Your task to perform on an android device: Go to ESPN.com Image 0: 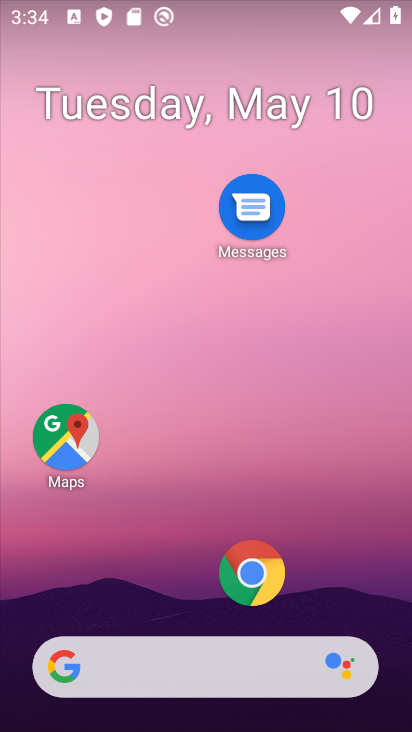
Step 0: click (242, 581)
Your task to perform on an android device: Go to ESPN.com Image 1: 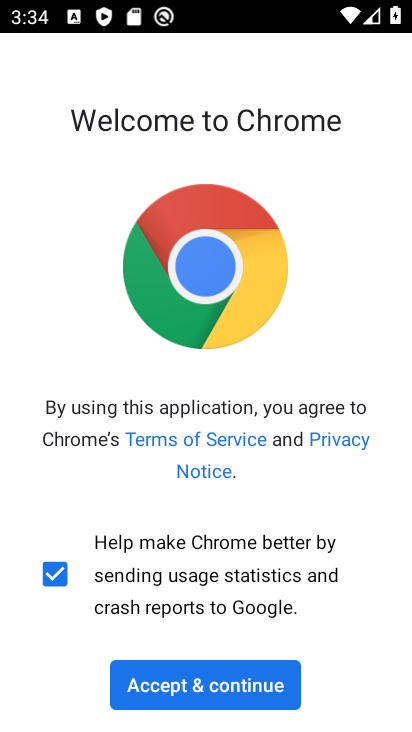
Step 1: click (153, 687)
Your task to perform on an android device: Go to ESPN.com Image 2: 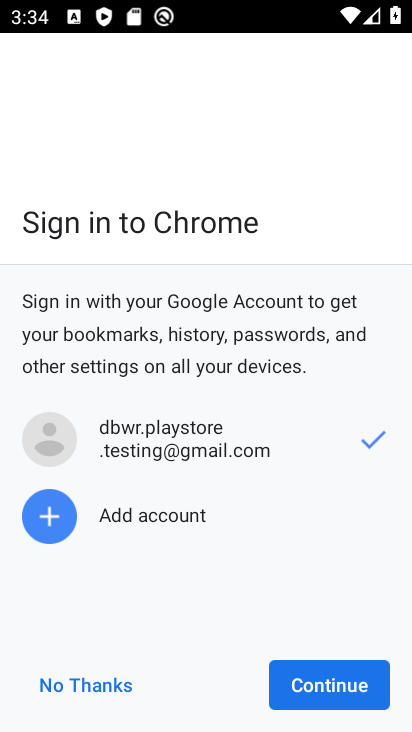
Step 2: click (340, 685)
Your task to perform on an android device: Go to ESPN.com Image 3: 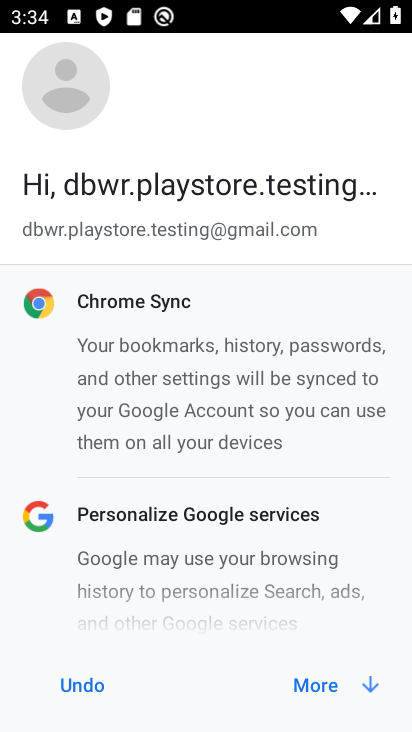
Step 3: click (351, 673)
Your task to perform on an android device: Go to ESPN.com Image 4: 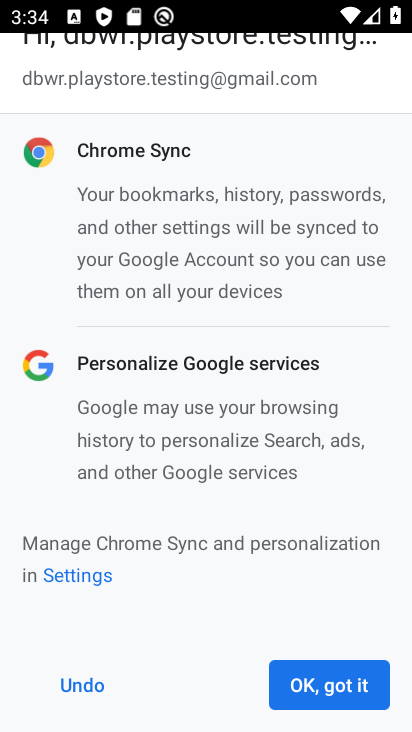
Step 4: click (351, 673)
Your task to perform on an android device: Go to ESPN.com Image 5: 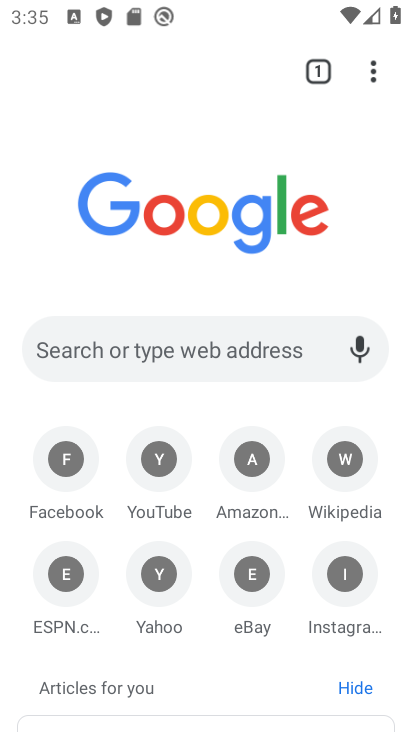
Step 5: click (321, 71)
Your task to perform on an android device: Go to ESPN.com Image 6: 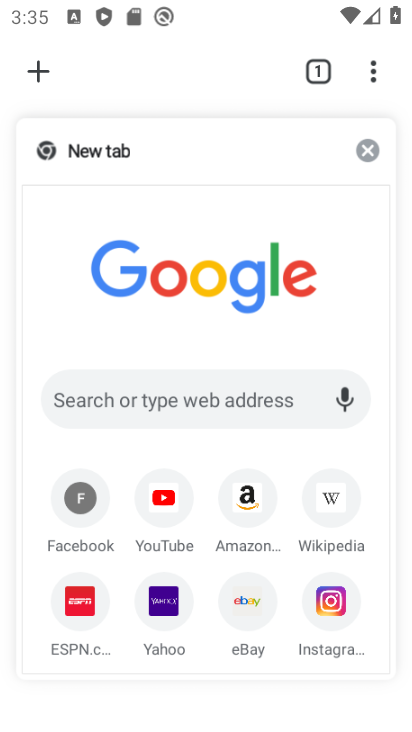
Step 6: click (43, 77)
Your task to perform on an android device: Go to ESPN.com Image 7: 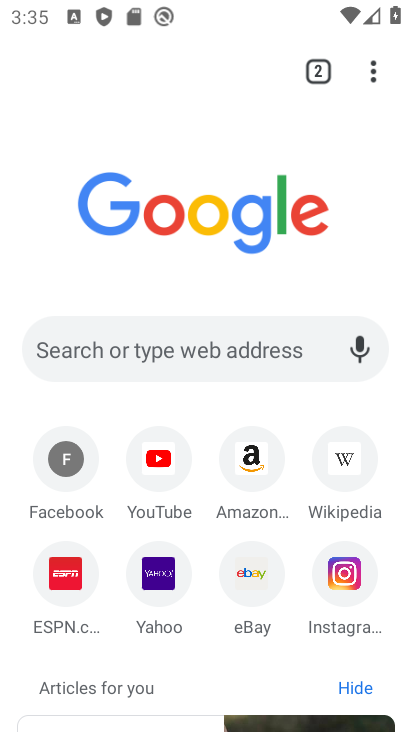
Step 7: click (73, 602)
Your task to perform on an android device: Go to ESPN.com Image 8: 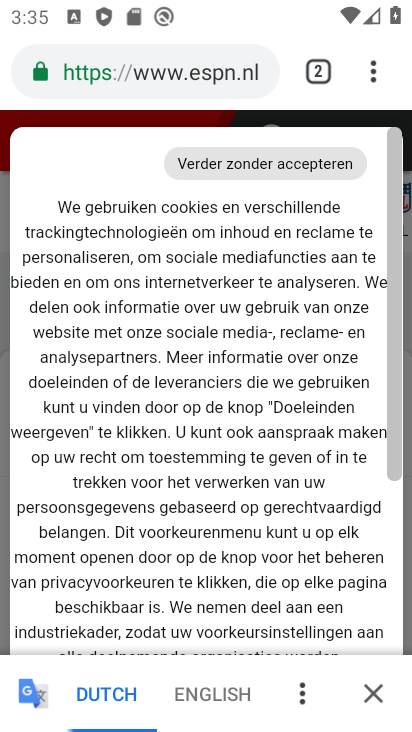
Step 8: task complete